Your task to perform on an android device: set the stopwatch Image 0: 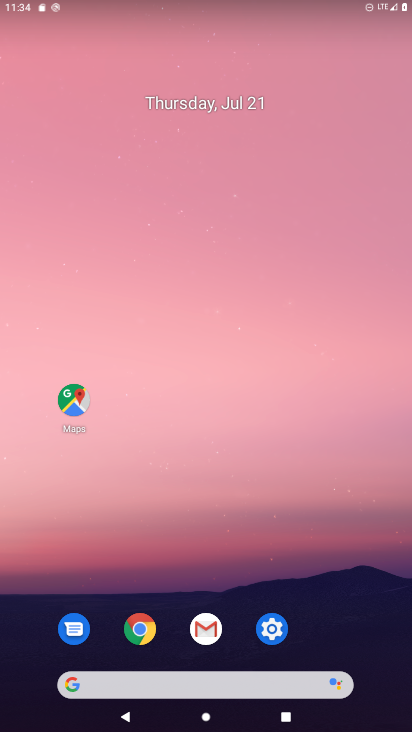
Step 0: drag from (263, 700) to (304, 91)
Your task to perform on an android device: set the stopwatch Image 1: 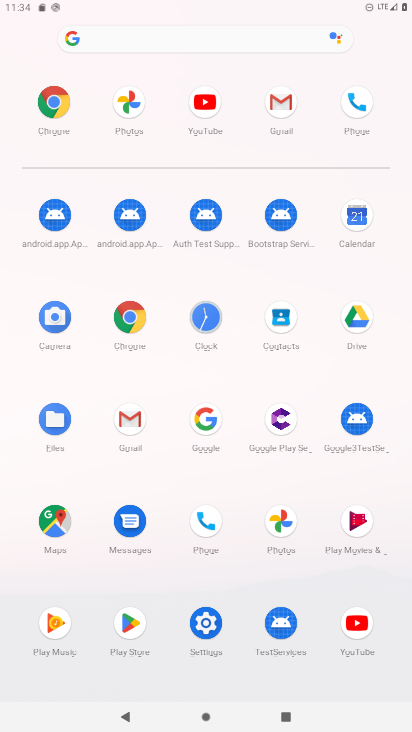
Step 1: click (214, 315)
Your task to perform on an android device: set the stopwatch Image 2: 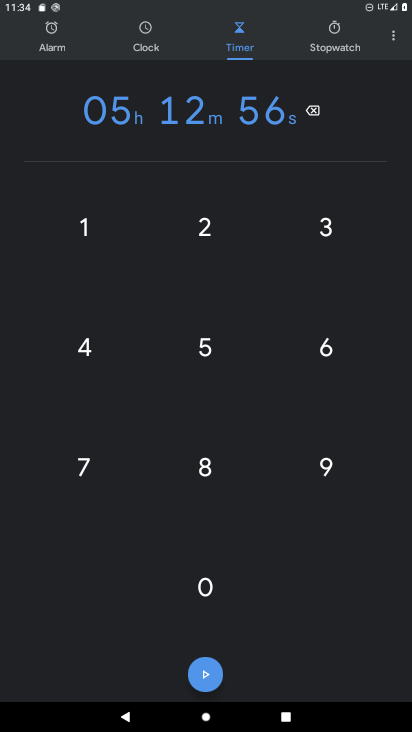
Step 2: click (335, 50)
Your task to perform on an android device: set the stopwatch Image 3: 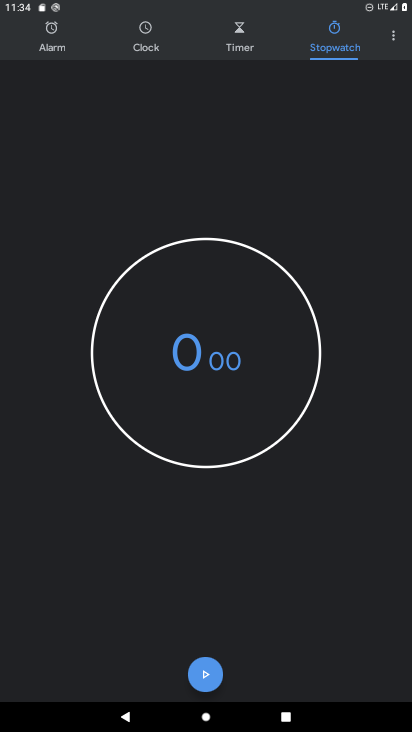
Step 3: click (204, 685)
Your task to perform on an android device: set the stopwatch Image 4: 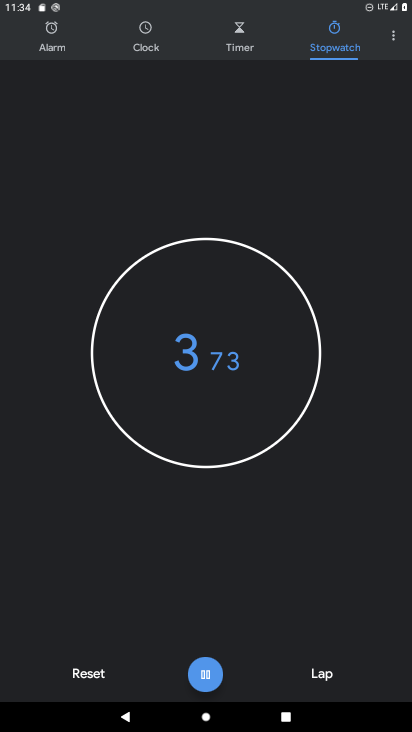
Step 4: click (205, 681)
Your task to perform on an android device: set the stopwatch Image 5: 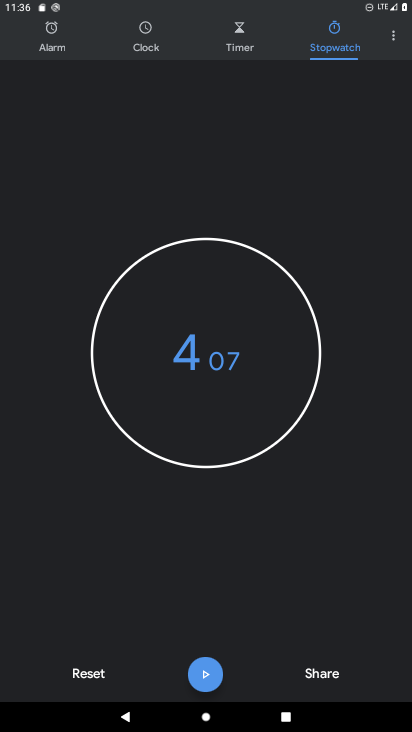
Step 5: task complete